Your task to perform on an android device: toggle sleep mode Image 0: 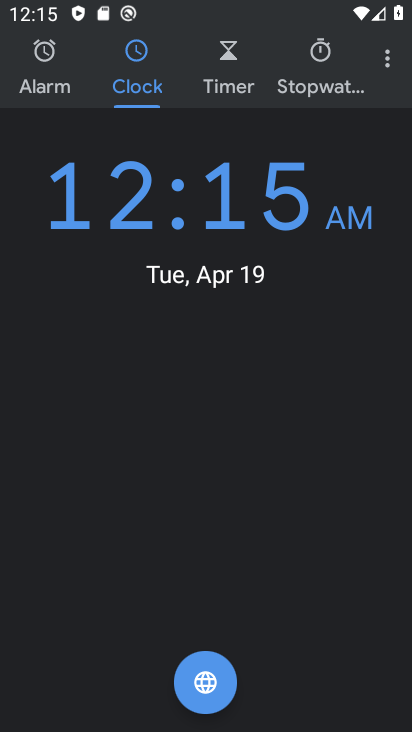
Step 0: drag from (329, 571) to (309, 91)
Your task to perform on an android device: toggle sleep mode Image 1: 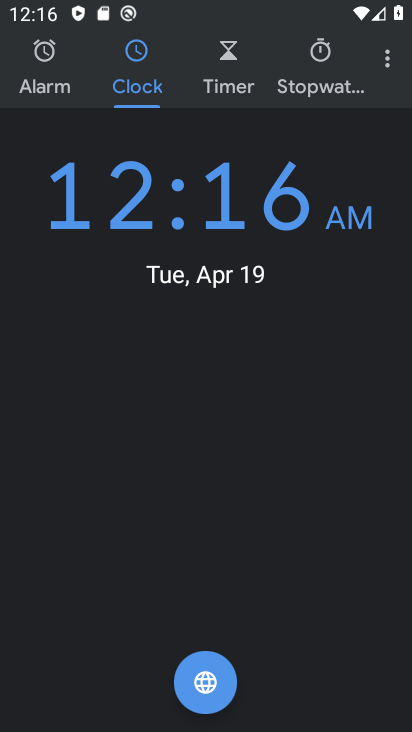
Step 1: press home button
Your task to perform on an android device: toggle sleep mode Image 2: 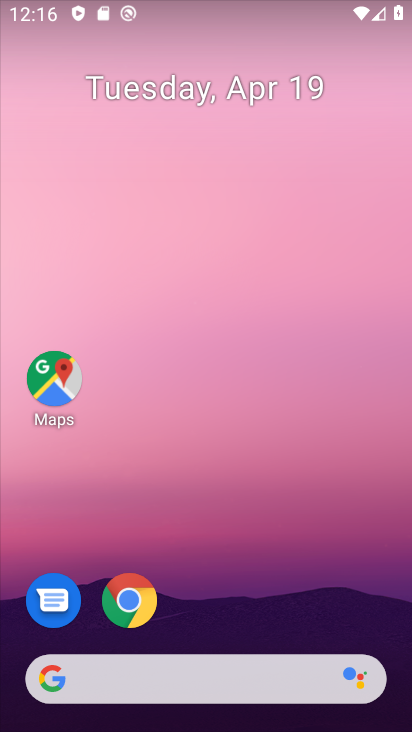
Step 2: drag from (313, 546) to (309, 75)
Your task to perform on an android device: toggle sleep mode Image 3: 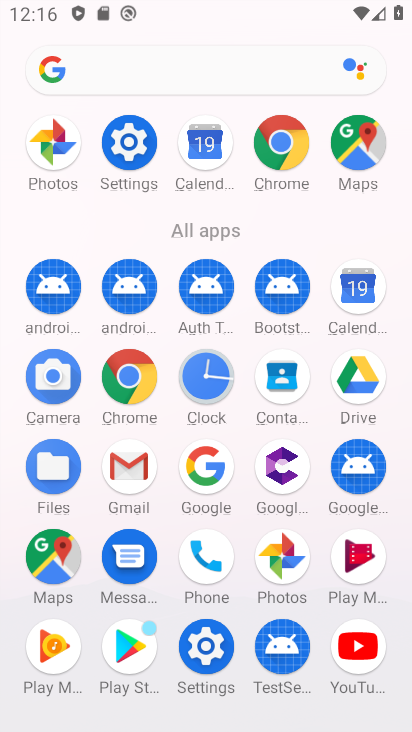
Step 3: click (121, 152)
Your task to perform on an android device: toggle sleep mode Image 4: 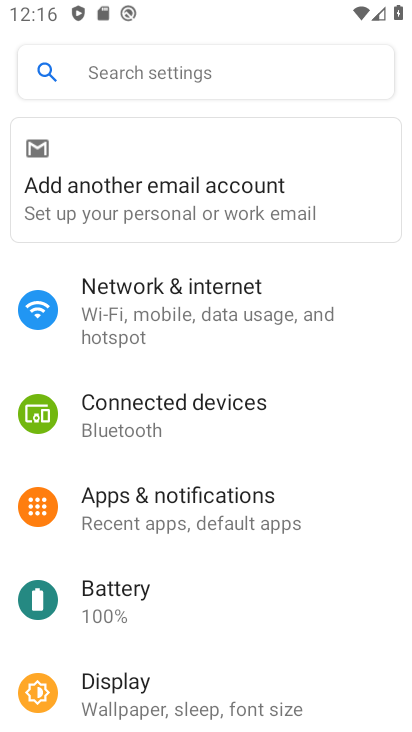
Step 4: drag from (199, 617) to (237, 250)
Your task to perform on an android device: toggle sleep mode Image 5: 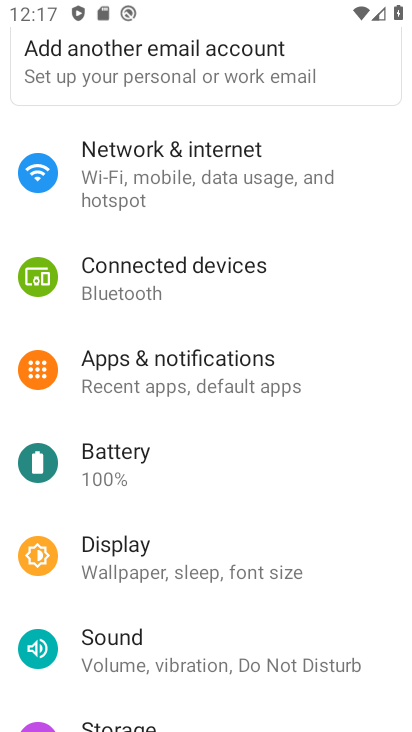
Step 5: drag from (262, 289) to (327, 612)
Your task to perform on an android device: toggle sleep mode Image 6: 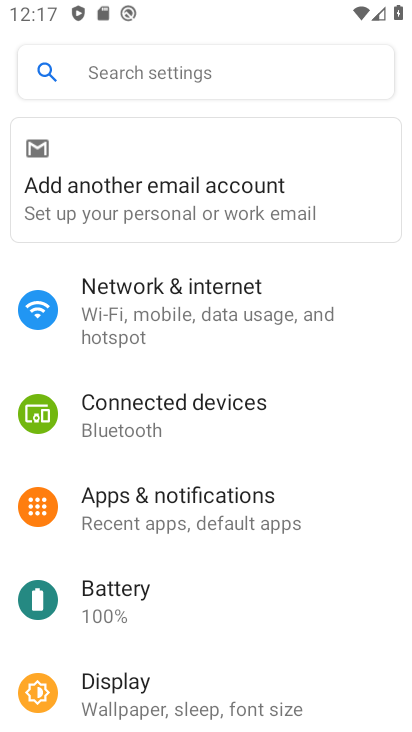
Step 6: drag from (271, 614) to (325, 153)
Your task to perform on an android device: toggle sleep mode Image 7: 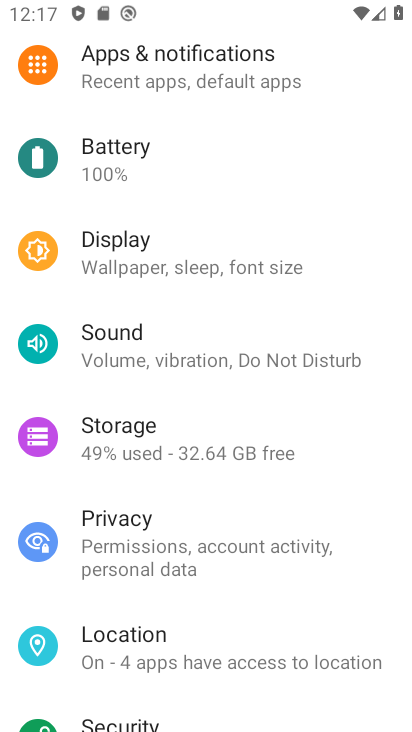
Step 7: drag from (166, 639) to (150, 181)
Your task to perform on an android device: toggle sleep mode Image 8: 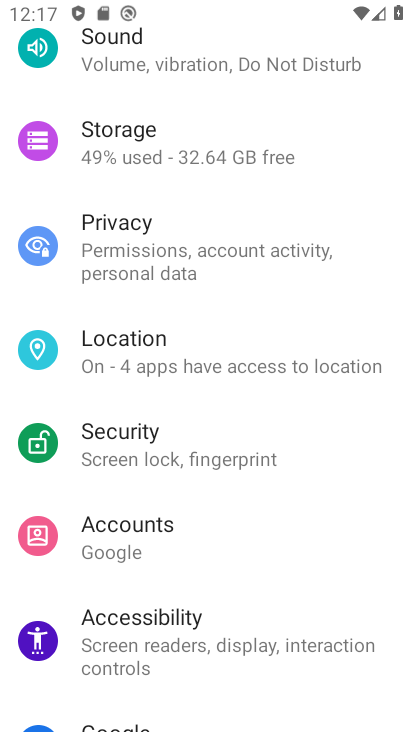
Step 8: drag from (159, 493) to (127, 146)
Your task to perform on an android device: toggle sleep mode Image 9: 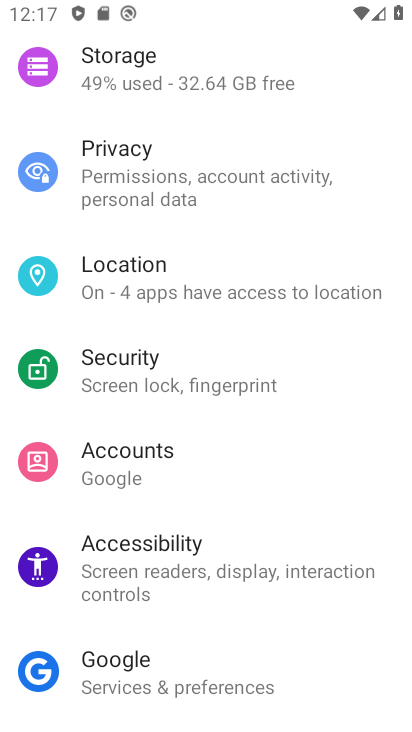
Step 9: drag from (209, 592) to (212, 109)
Your task to perform on an android device: toggle sleep mode Image 10: 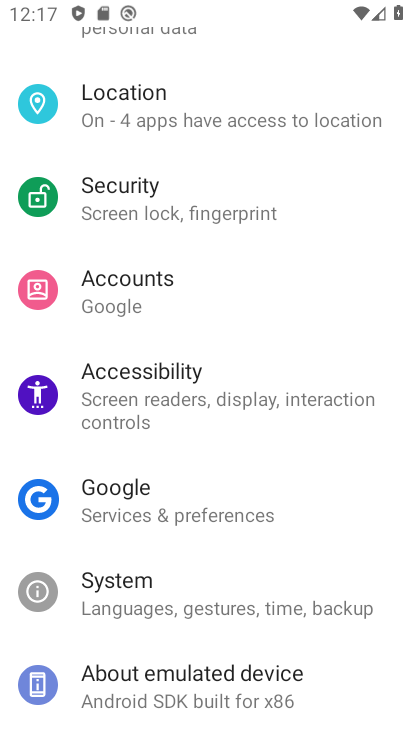
Step 10: drag from (287, 582) to (296, 119)
Your task to perform on an android device: toggle sleep mode Image 11: 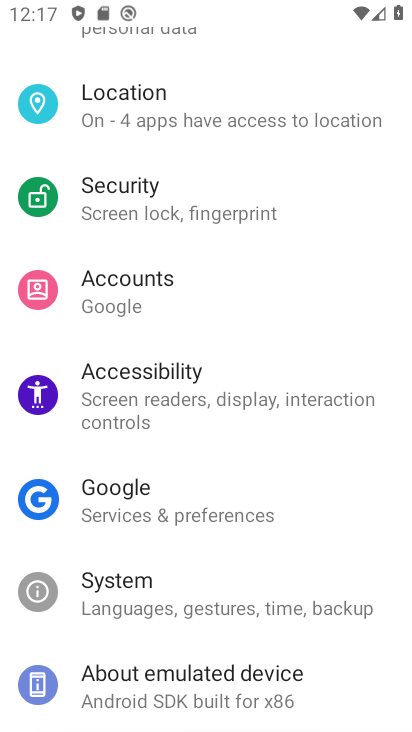
Step 11: drag from (295, 156) to (262, 469)
Your task to perform on an android device: toggle sleep mode Image 12: 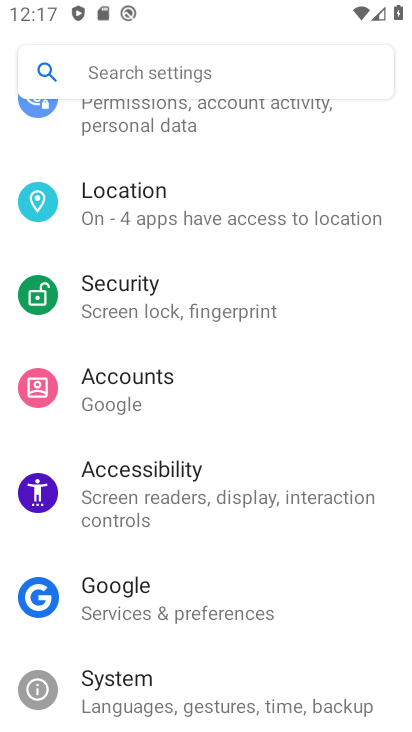
Step 12: drag from (249, 288) to (266, 555)
Your task to perform on an android device: toggle sleep mode Image 13: 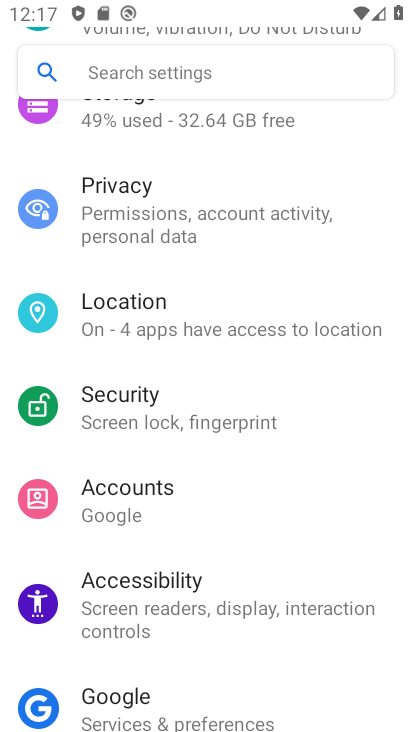
Step 13: drag from (201, 207) to (249, 587)
Your task to perform on an android device: toggle sleep mode Image 14: 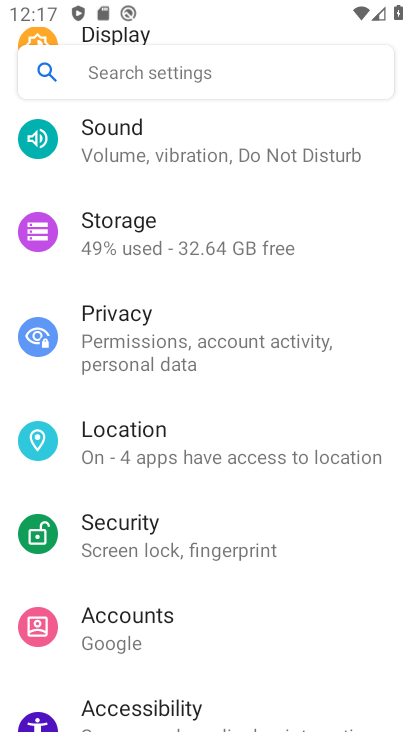
Step 14: drag from (177, 147) to (186, 603)
Your task to perform on an android device: toggle sleep mode Image 15: 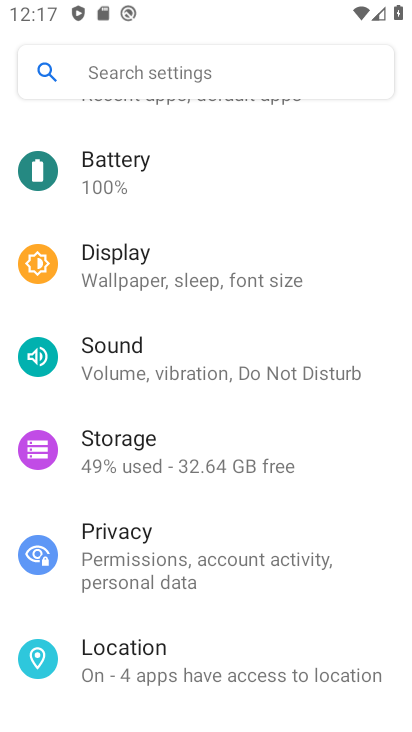
Step 15: drag from (171, 288) to (247, 620)
Your task to perform on an android device: toggle sleep mode Image 16: 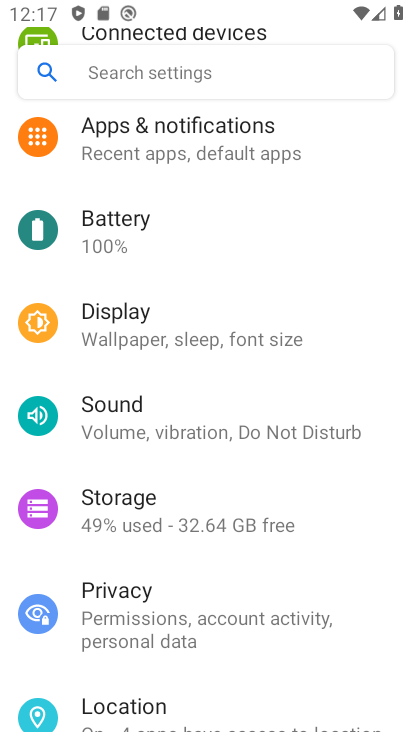
Step 16: click (173, 324)
Your task to perform on an android device: toggle sleep mode Image 17: 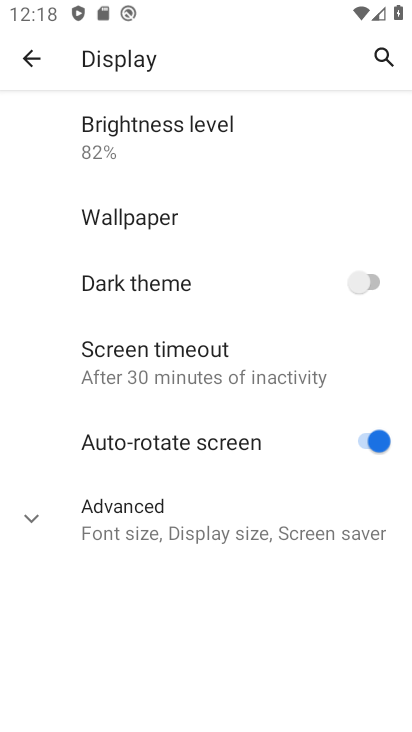
Step 17: click (120, 389)
Your task to perform on an android device: toggle sleep mode Image 18: 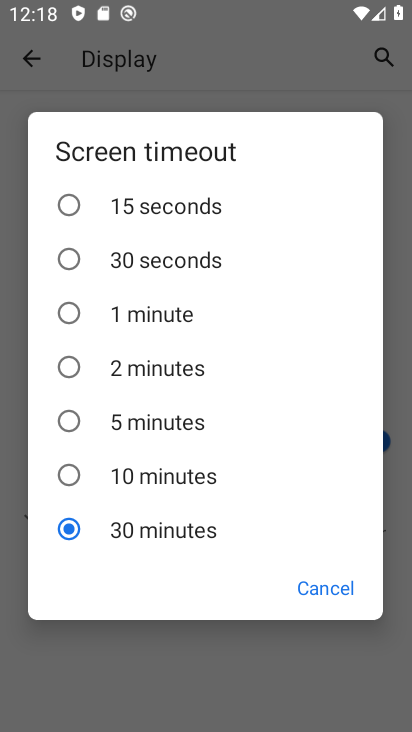
Step 18: click (80, 370)
Your task to perform on an android device: toggle sleep mode Image 19: 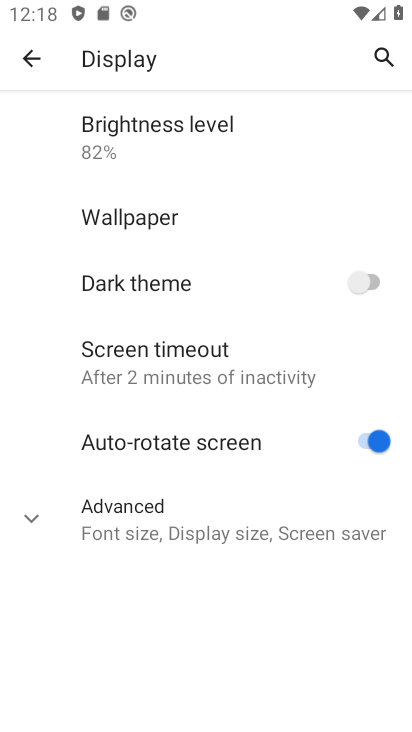
Step 19: task complete